Your task to perform on an android device: Search for "acer predator" on costco.com, select the first entry, add it to the cart, then select checkout. Image 0: 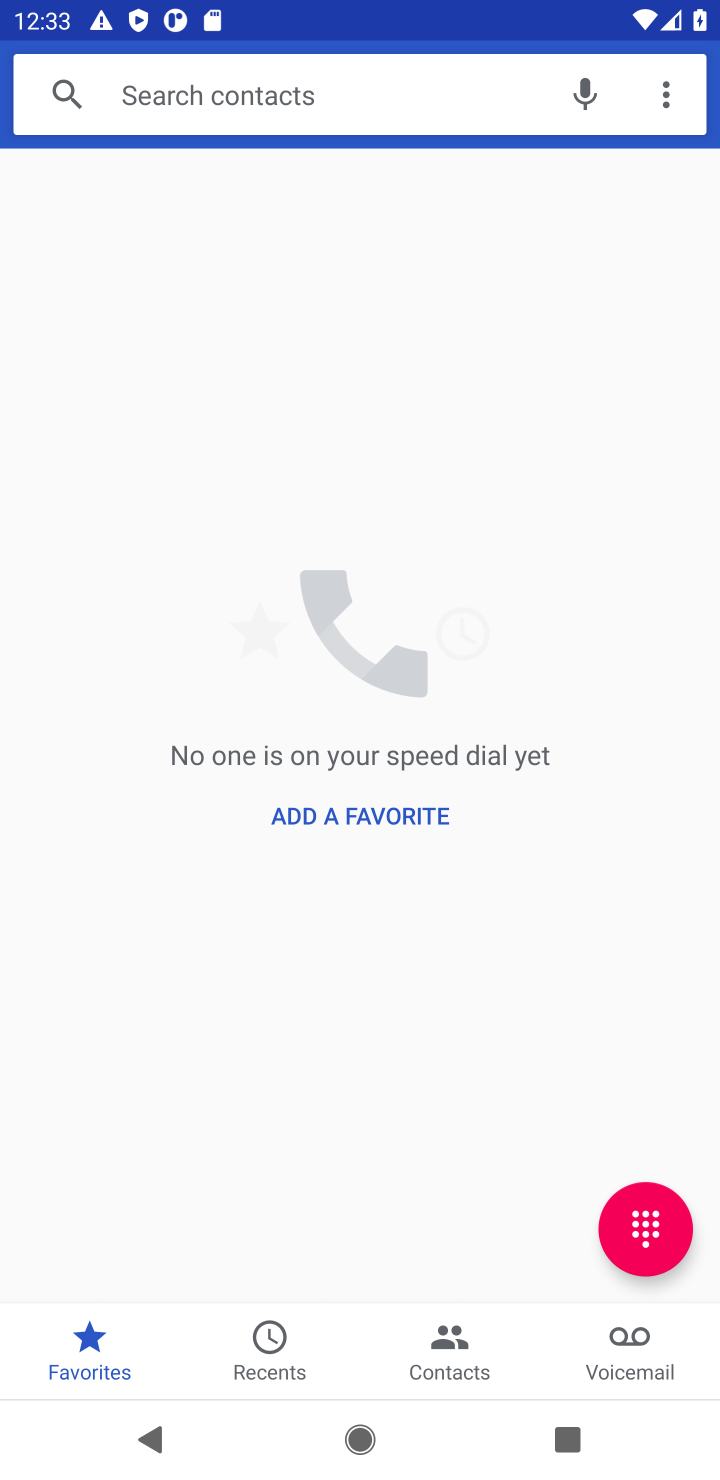
Step 0: press home button
Your task to perform on an android device: Search for "acer predator" on costco.com, select the first entry, add it to the cart, then select checkout. Image 1: 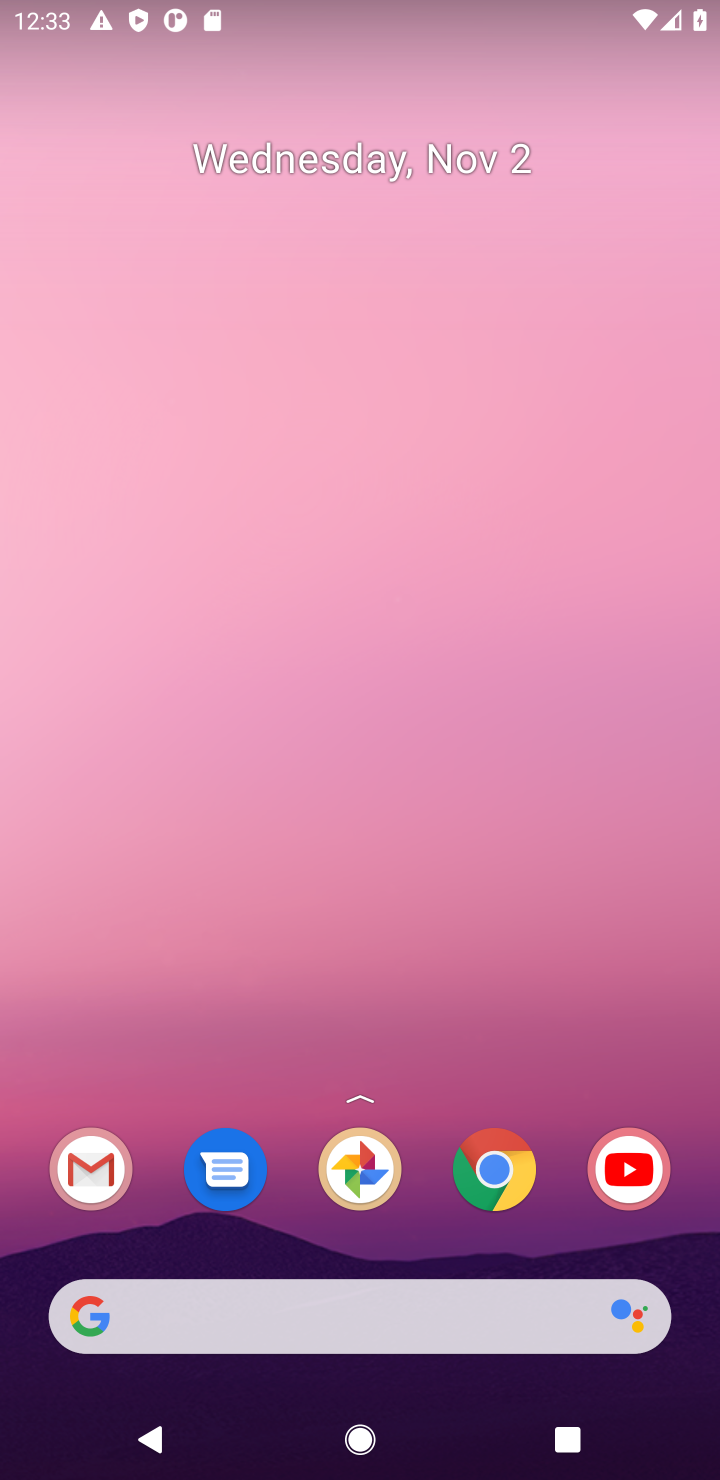
Step 1: click (507, 1157)
Your task to perform on an android device: Search for "acer predator" on costco.com, select the first entry, add it to the cart, then select checkout. Image 2: 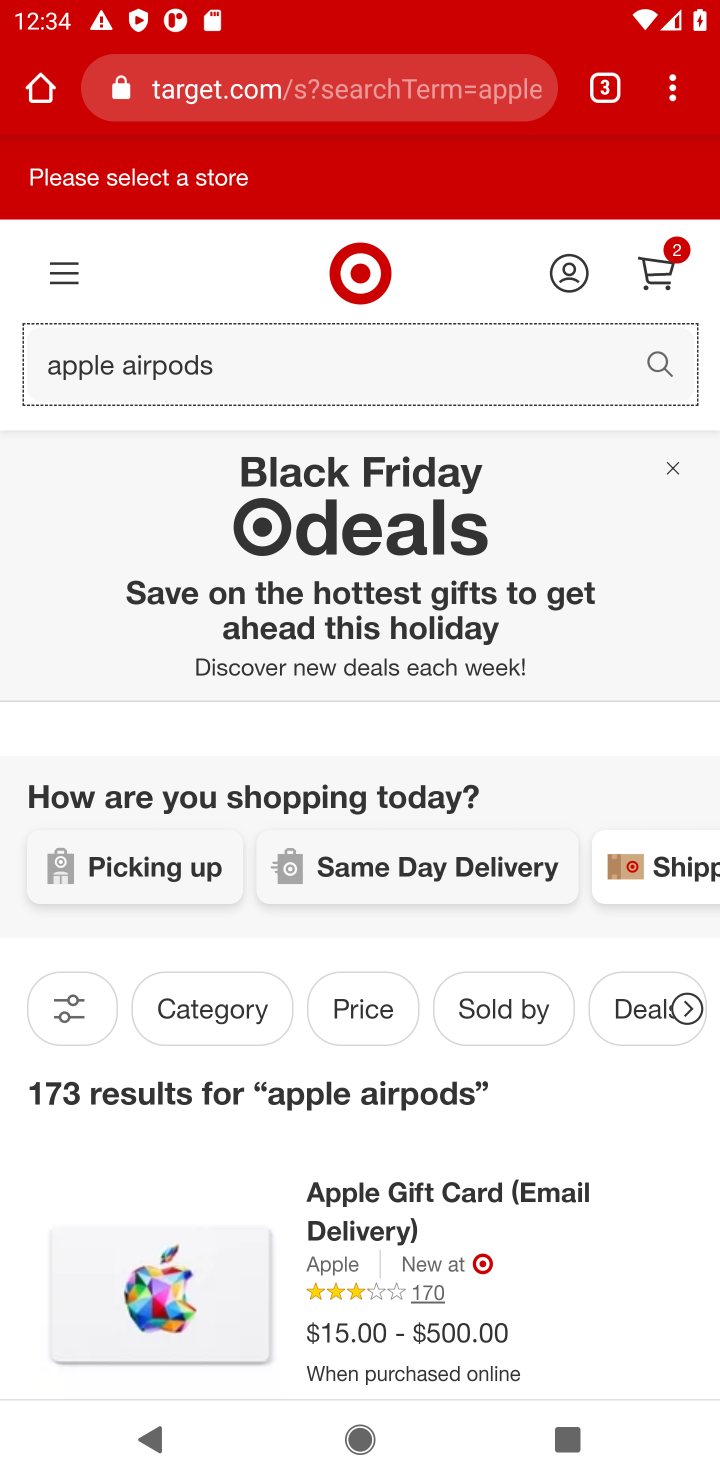
Step 2: drag from (675, 101) to (355, 182)
Your task to perform on an android device: Search for "acer predator" on costco.com, select the first entry, add it to the cart, then select checkout. Image 3: 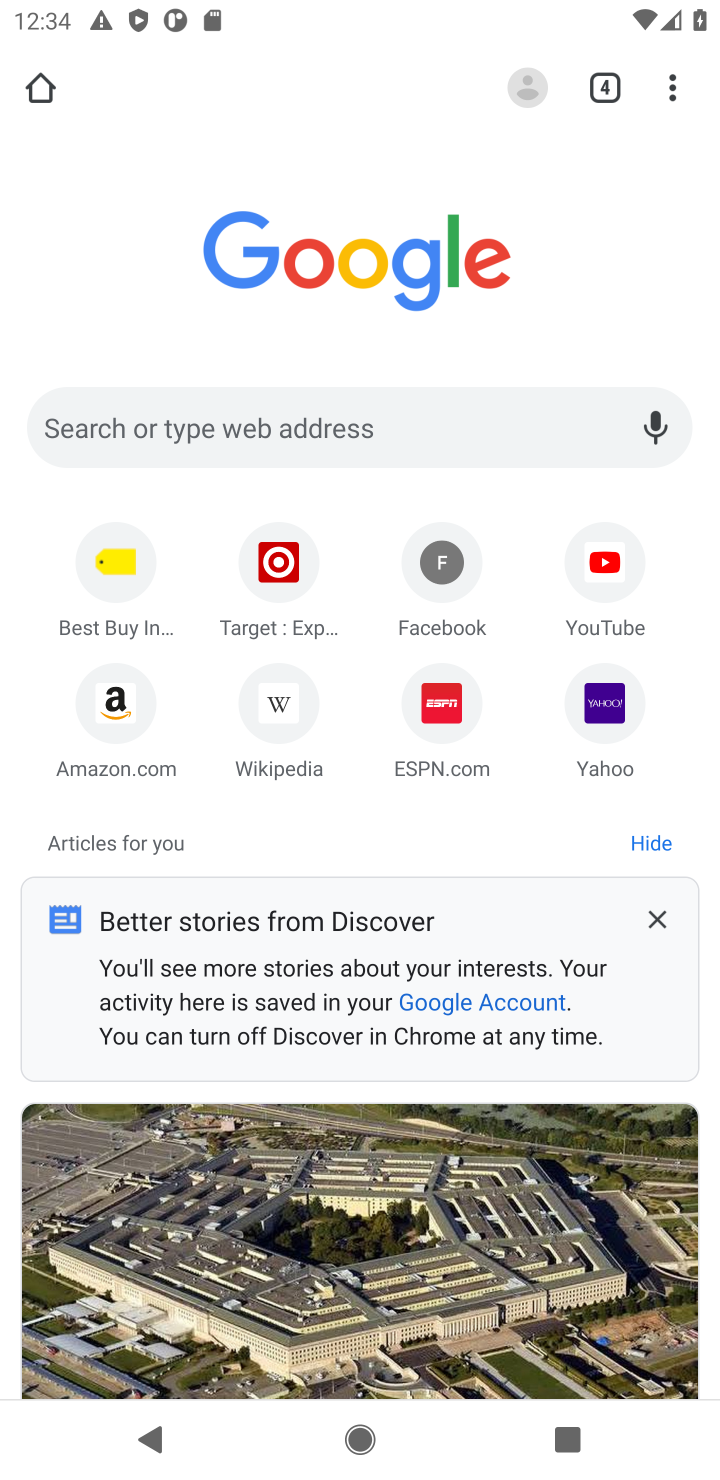
Step 3: click (459, 416)
Your task to perform on an android device: Search for "acer predator" on costco.com, select the first entry, add it to the cart, then select checkout. Image 4: 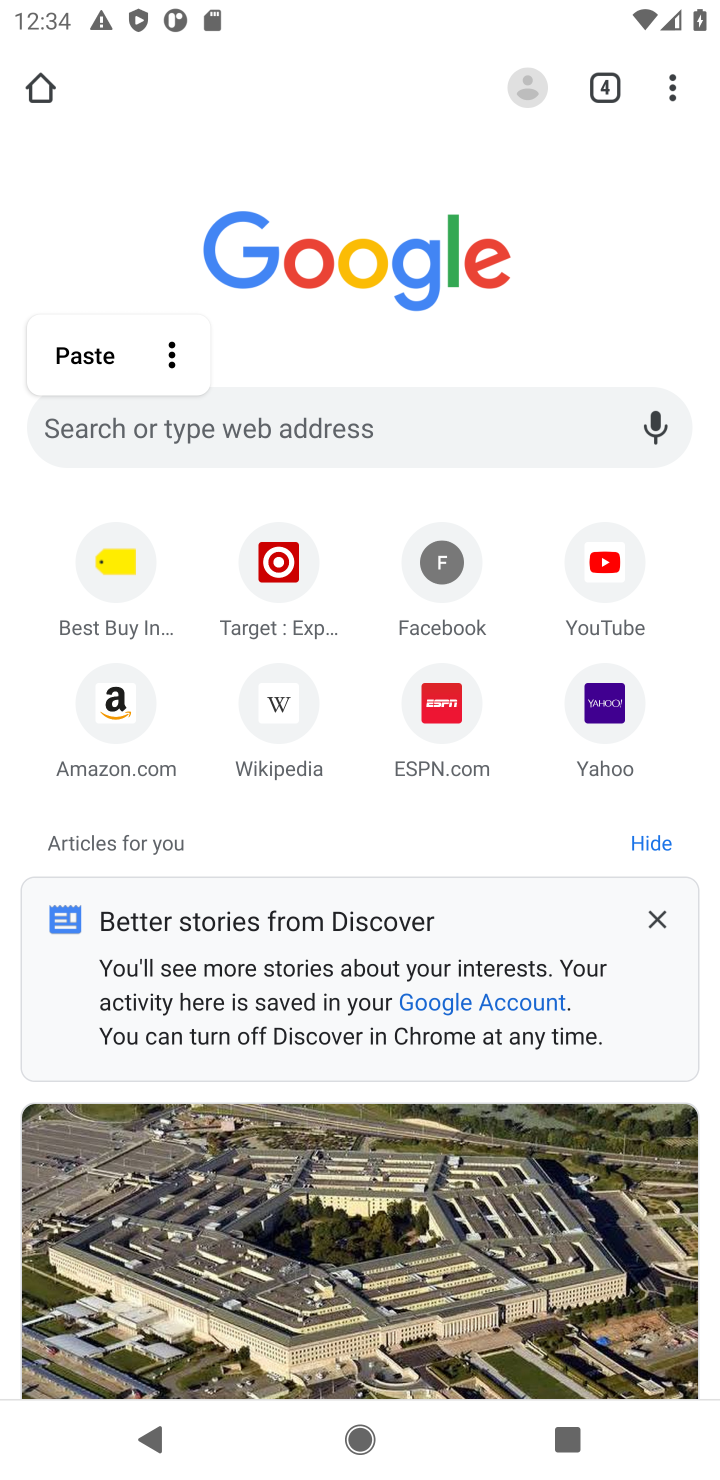
Step 4: type "costco.com,"
Your task to perform on an android device: Search for "acer predator" on costco.com, select the first entry, add it to the cart, then select checkout. Image 5: 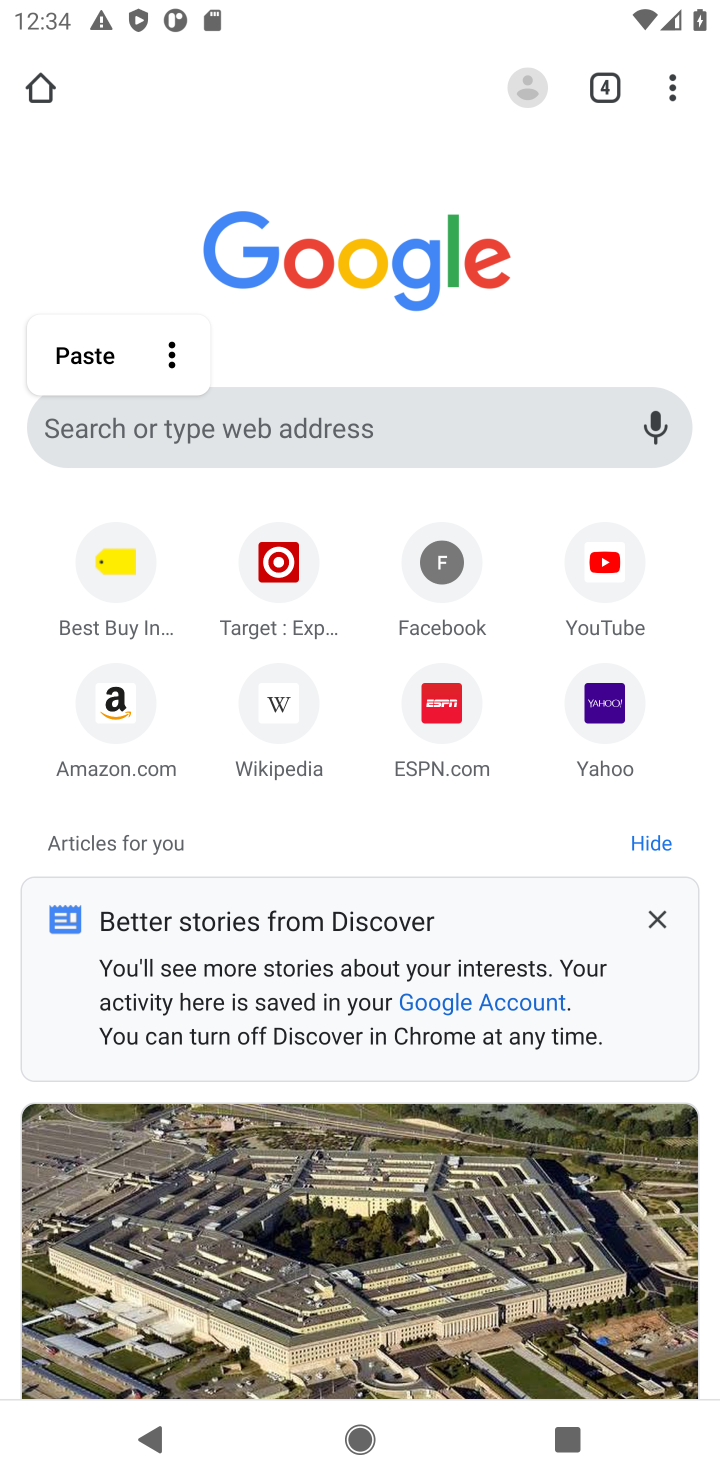
Step 5: type ""
Your task to perform on an android device: Search for "acer predator" on costco.com, select the first entry, add it to the cart, then select checkout. Image 6: 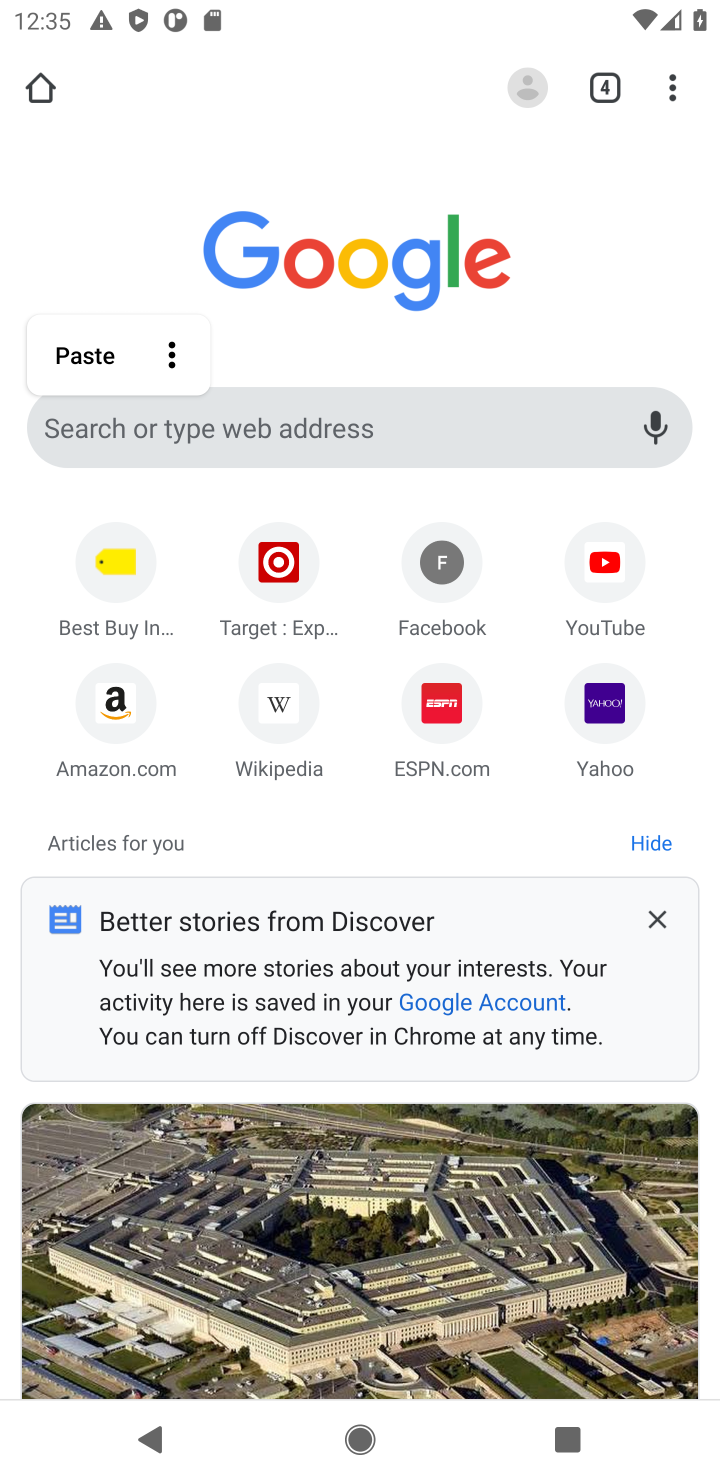
Step 6: click (345, 438)
Your task to perform on an android device: Search for "acer predator" on costco.com, select the first entry, add it to the cart, then select checkout. Image 7: 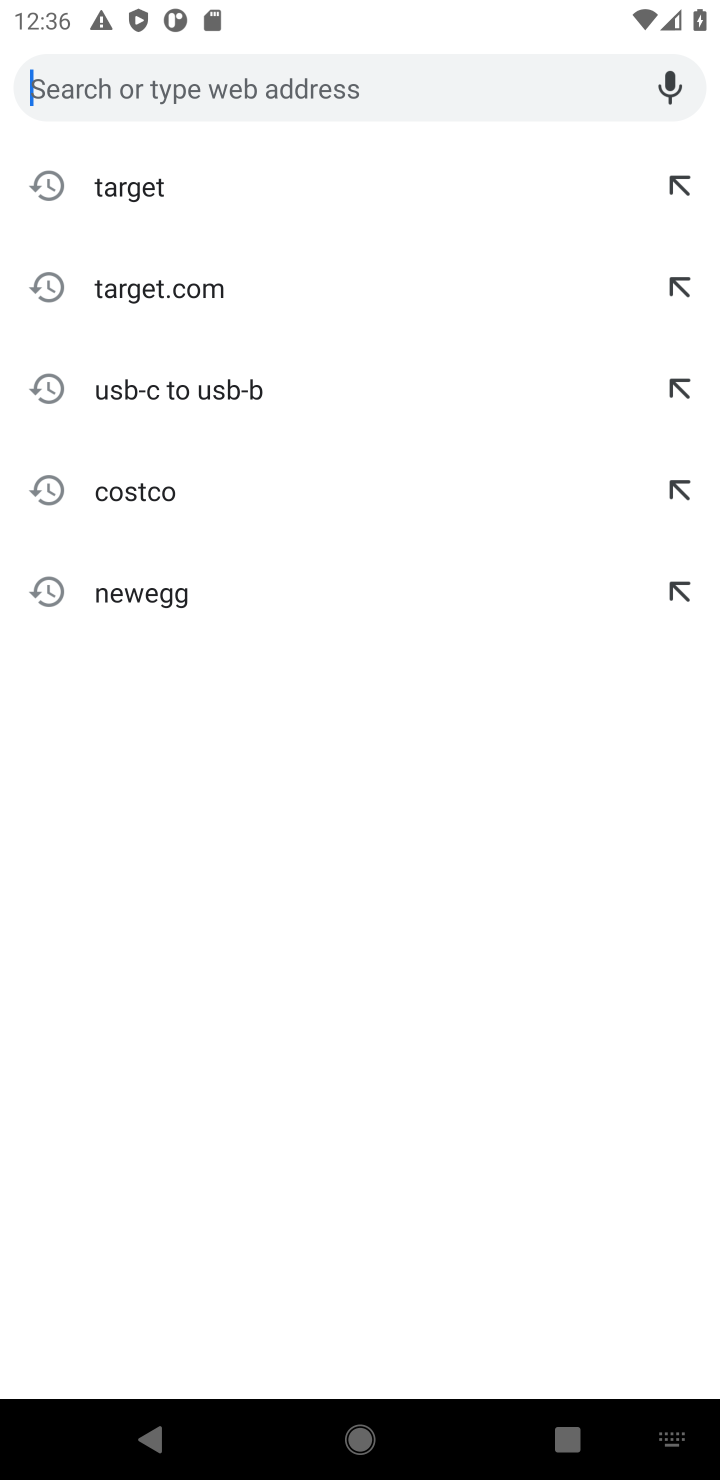
Step 7: type "costco.com,"
Your task to perform on an android device: Search for "acer predator" on costco.com, select the first entry, add it to the cart, then select checkout. Image 8: 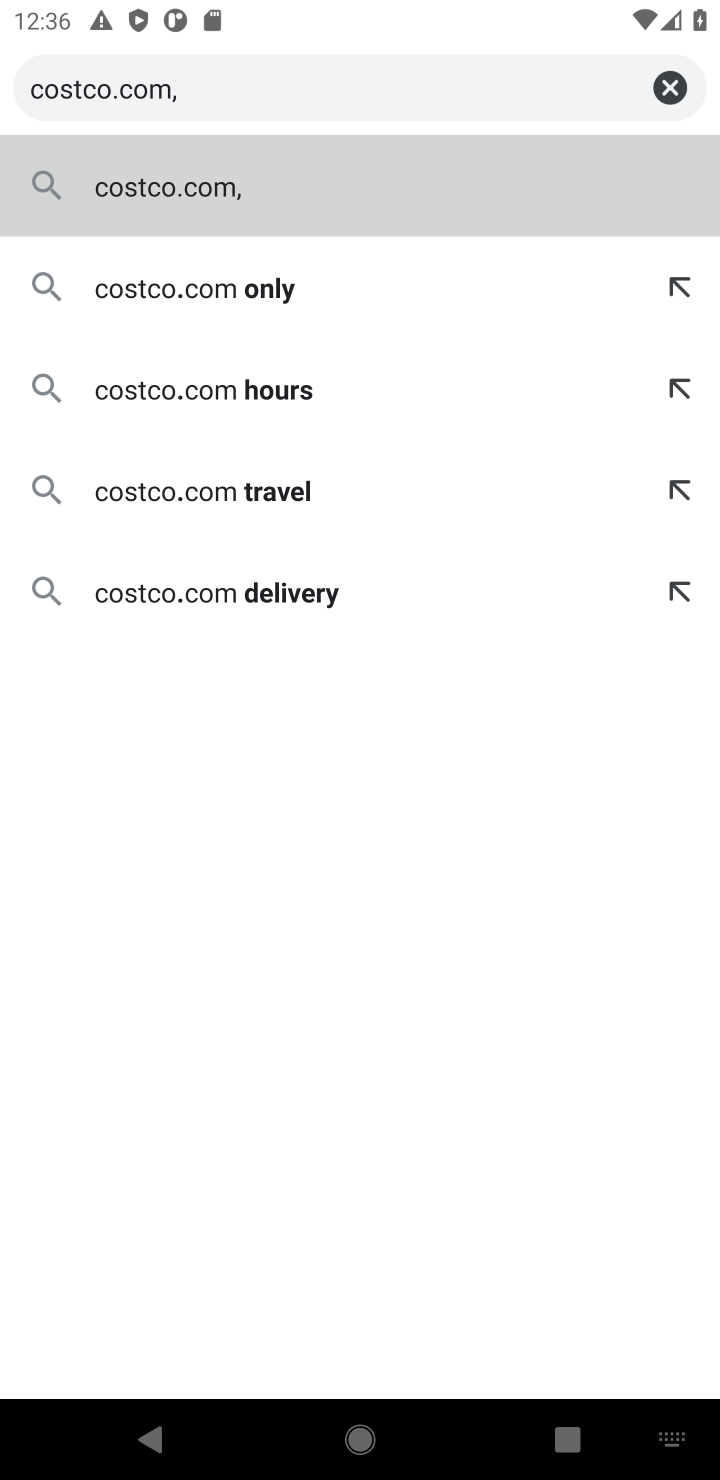
Step 8: type ""
Your task to perform on an android device: Search for "acer predator" on costco.com, select the first entry, add it to the cart, then select checkout. Image 9: 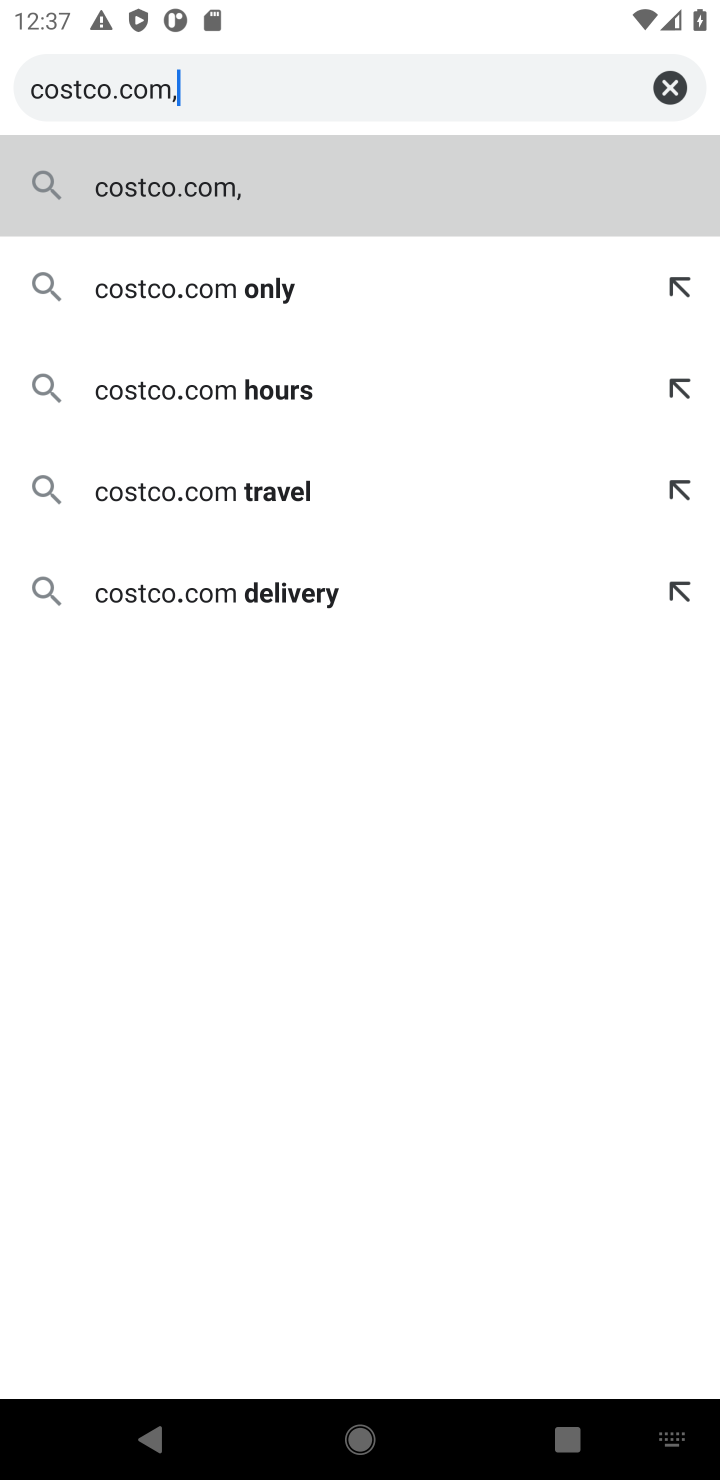
Step 9: click (198, 204)
Your task to perform on an android device: Search for "acer predator" on costco.com, select the first entry, add it to the cart, then select checkout. Image 10: 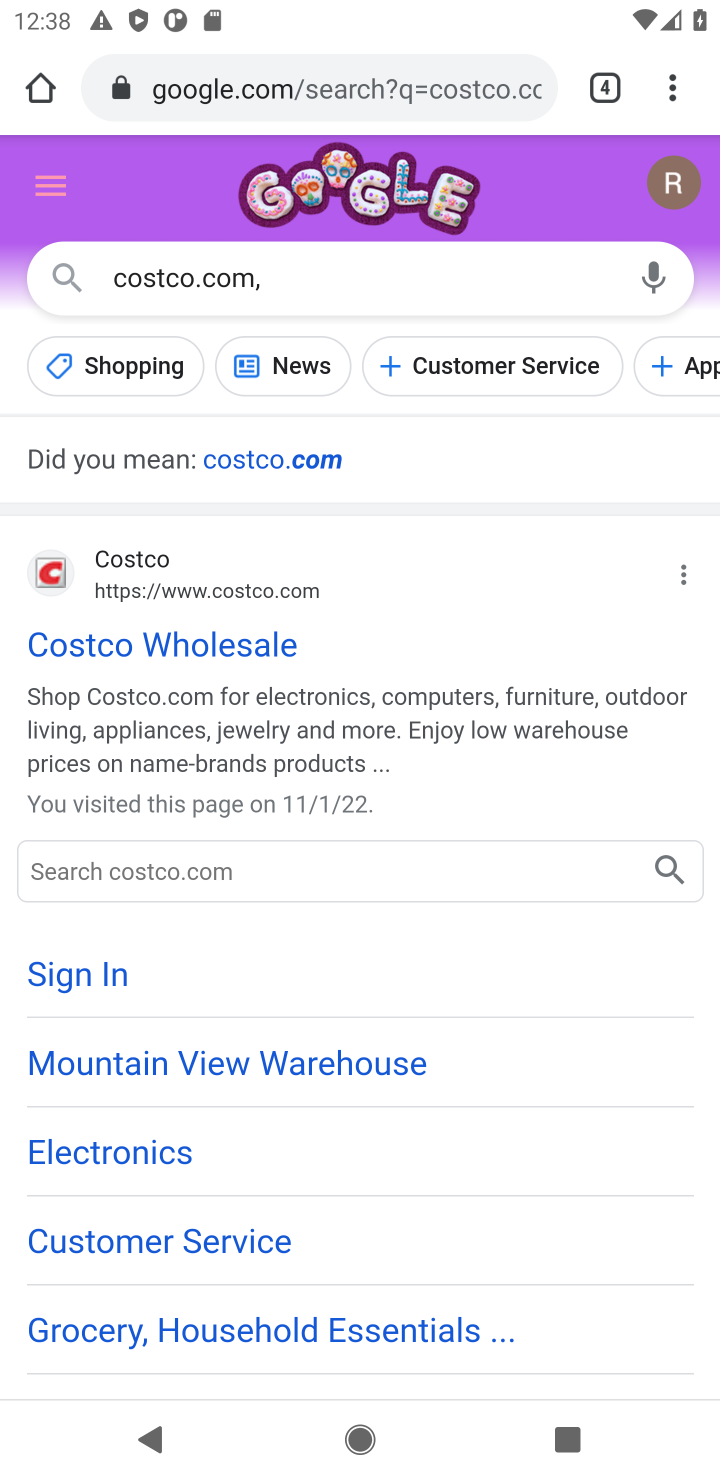
Step 10: click (206, 651)
Your task to perform on an android device: Search for "acer predator" on costco.com, select the first entry, add it to the cart, then select checkout. Image 11: 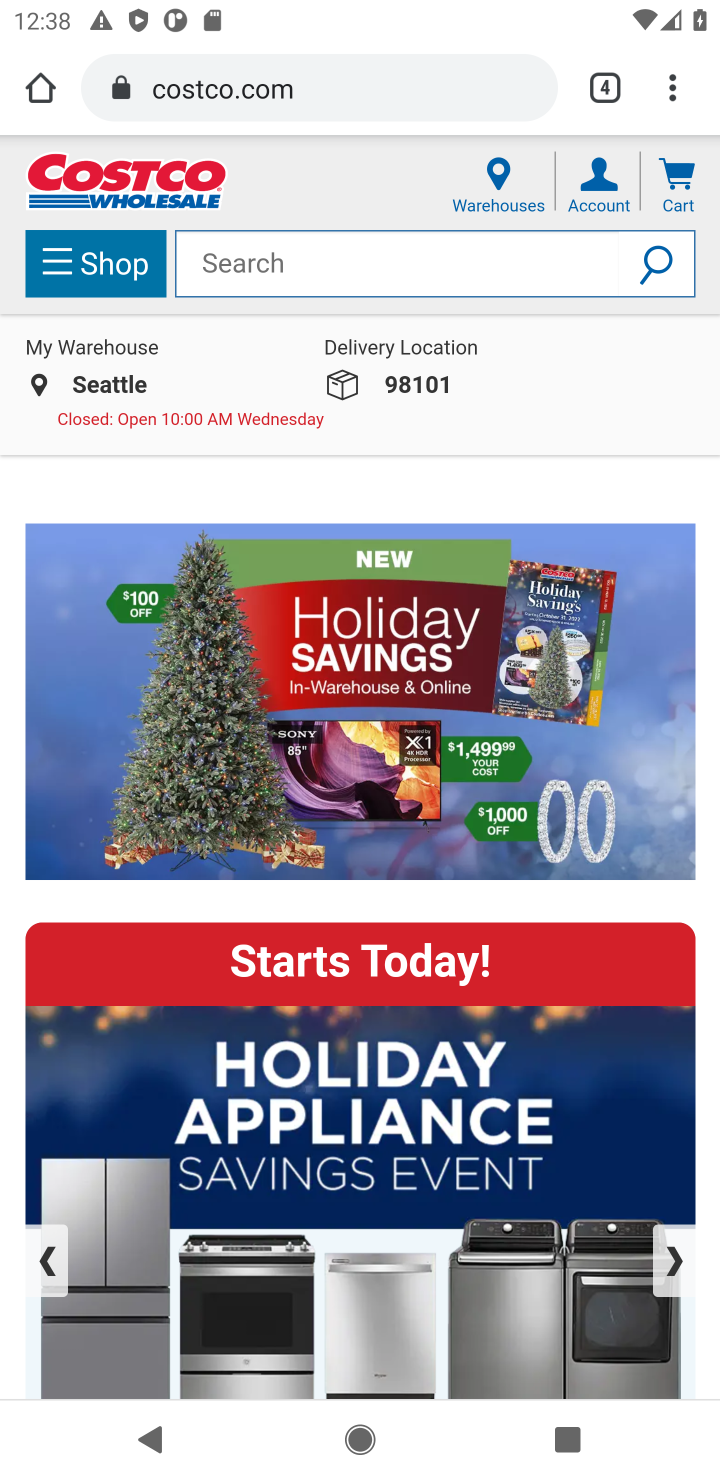
Step 11: click (219, 266)
Your task to perform on an android device: Search for "acer predator" on costco.com, select the first entry, add it to the cart, then select checkout. Image 12: 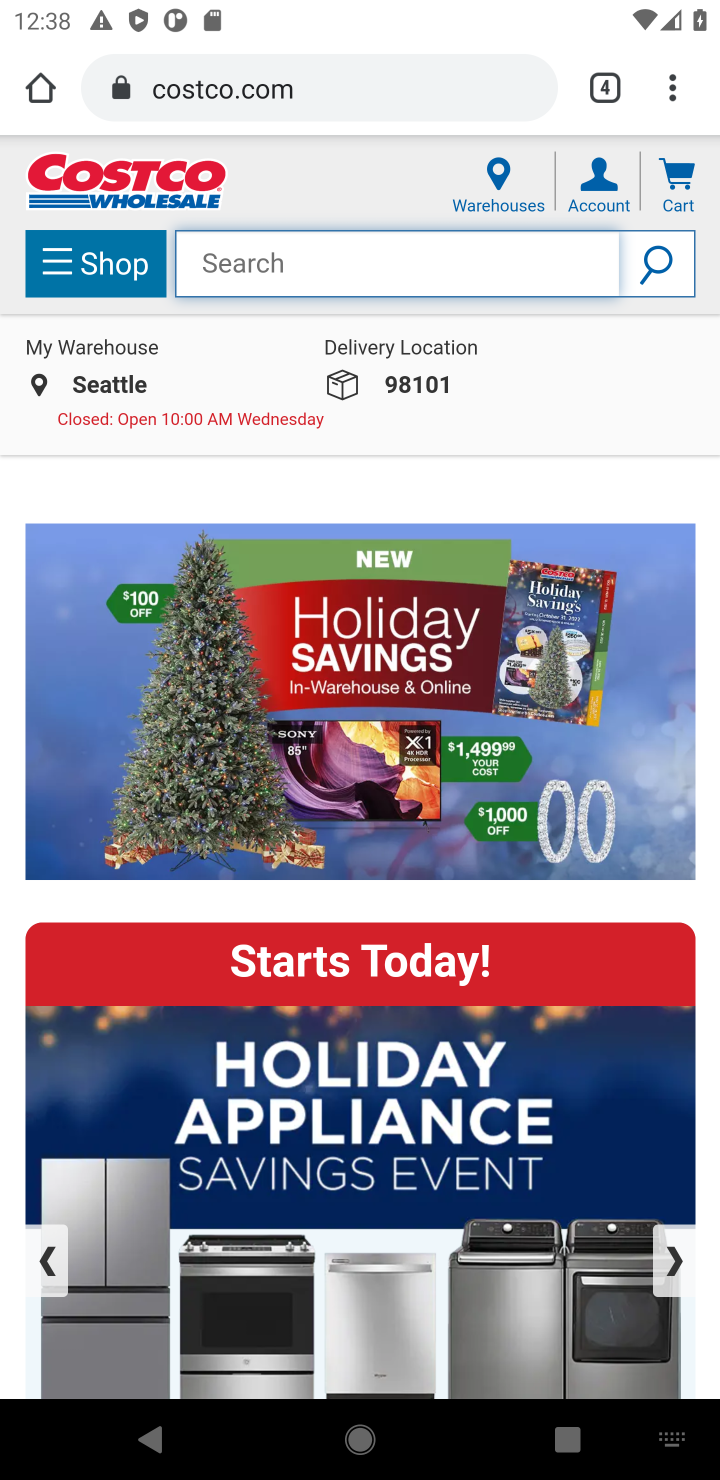
Step 12: type "acer predator"
Your task to perform on an android device: Search for "acer predator" on costco.com, select the first entry, add it to the cart, then select checkout. Image 13: 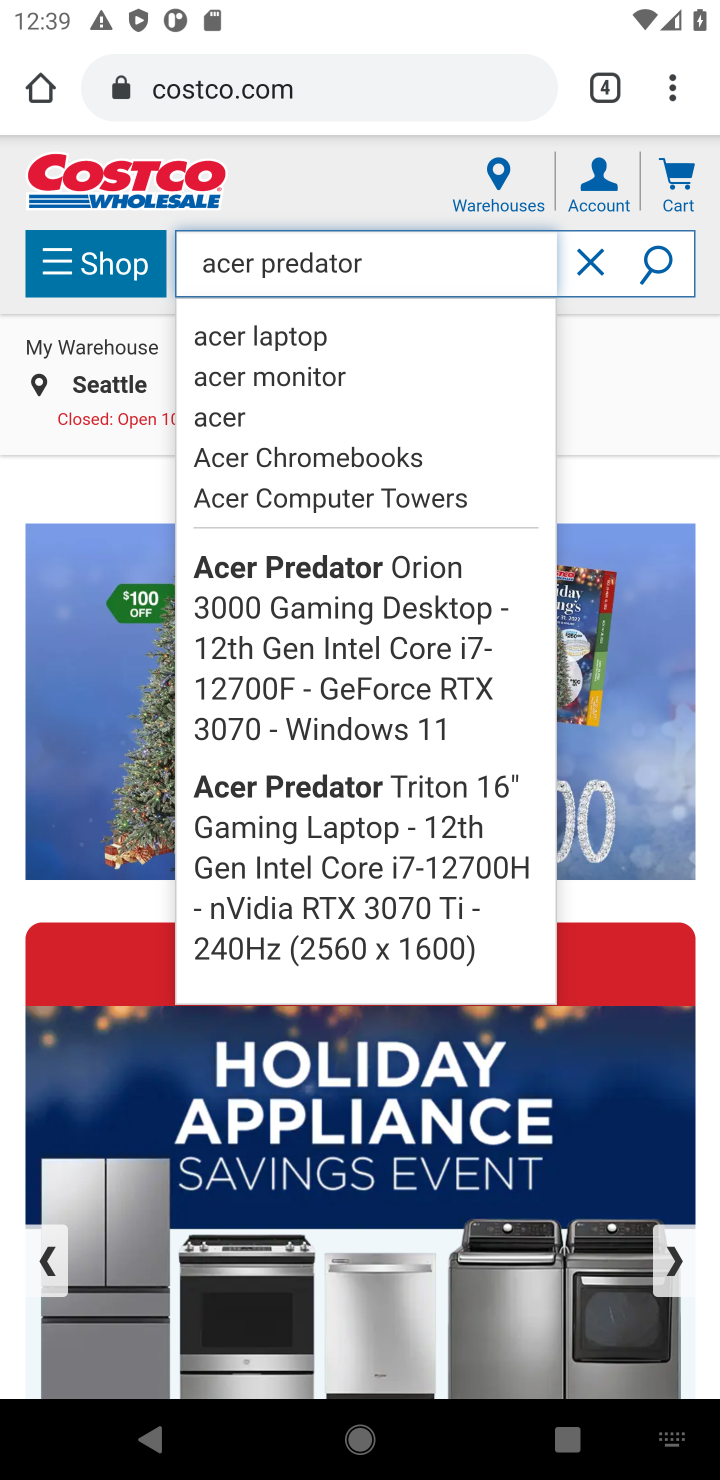
Step 13: click (648, 255)
Your task to perform on an android device: Search for "acer predator" on costco.com, select the first entry, add it to the cart, then select checkout. Image 14: 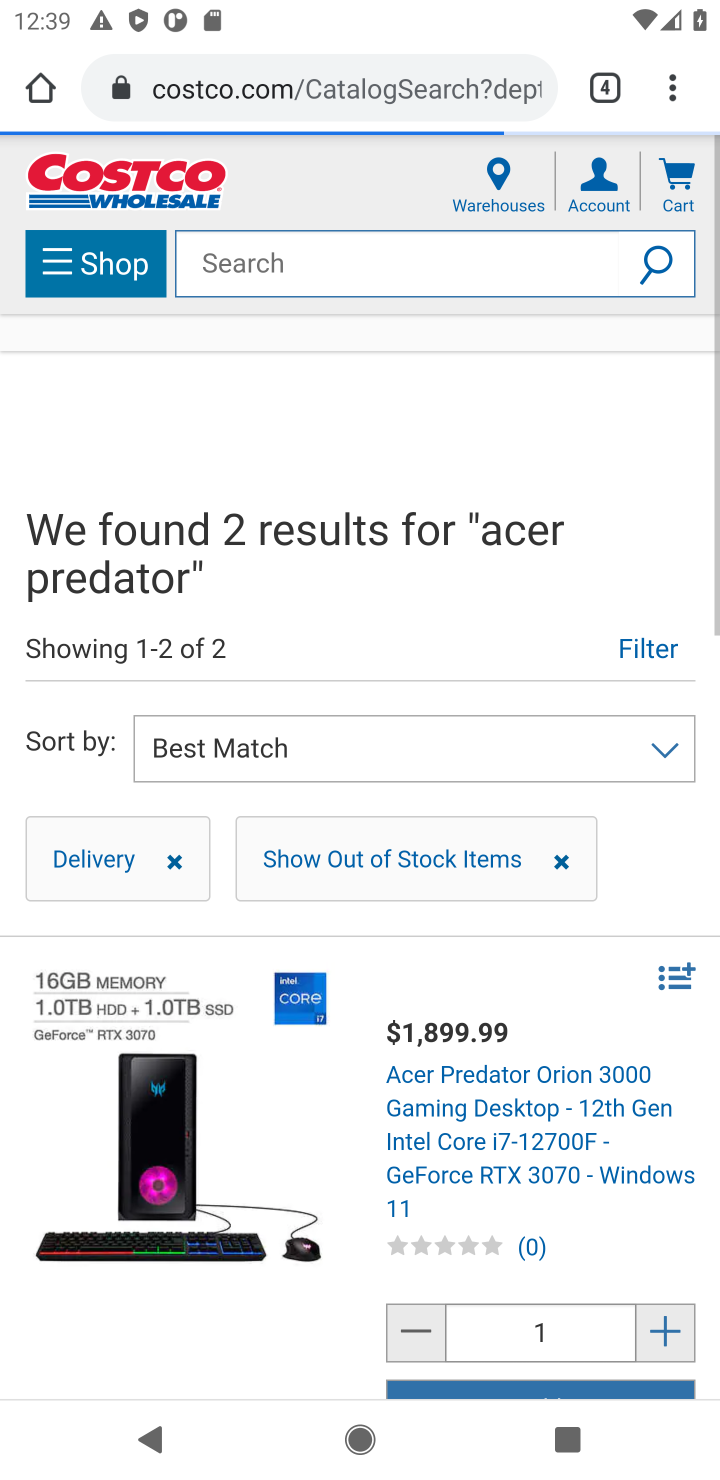
Step 14: task complete